Your task to perform on an android device: turn off location history Image 0: 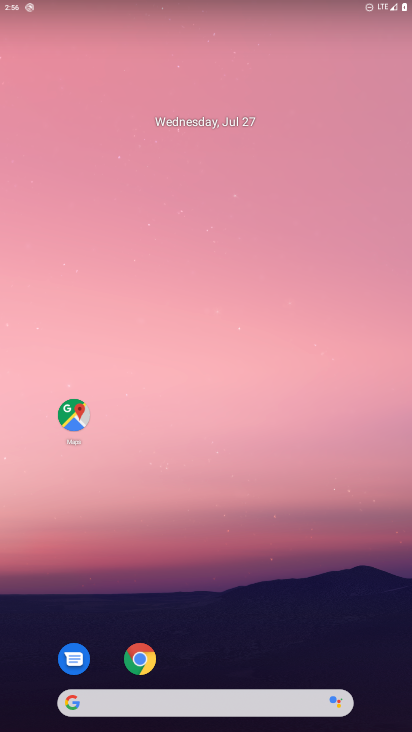
Step 0: drag from (255, 674) to (254, 522)
Your task to perform on an android device: turn off location history Image 1: 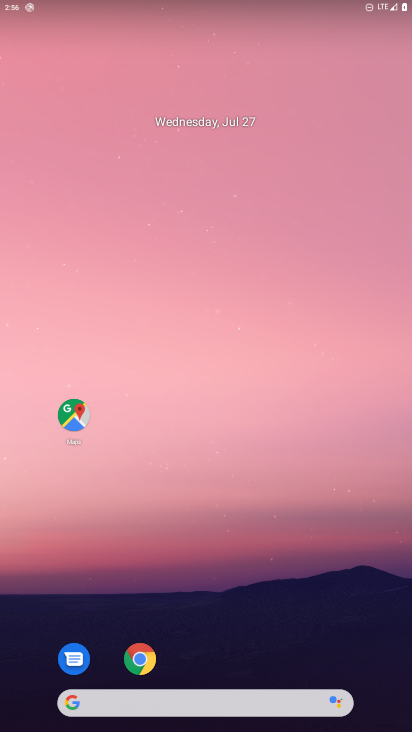
Step 1: drag from (194, 645) to (275, 296)
Your task to perform on an android device: turn off location history Image 2: 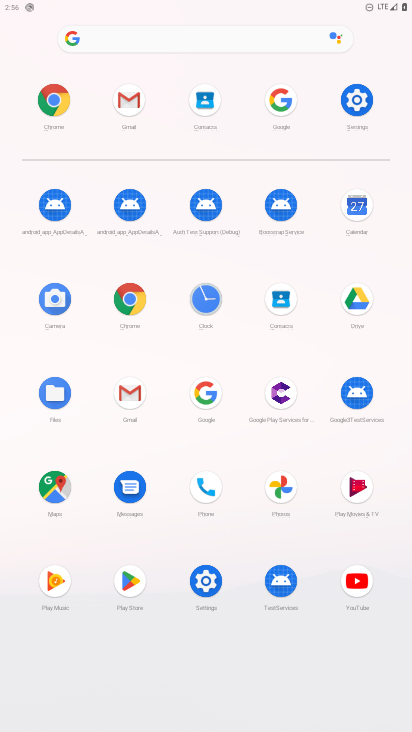
Step 2: click (363, 107)
Your task to perform on an android device: turn off location history Image 3: 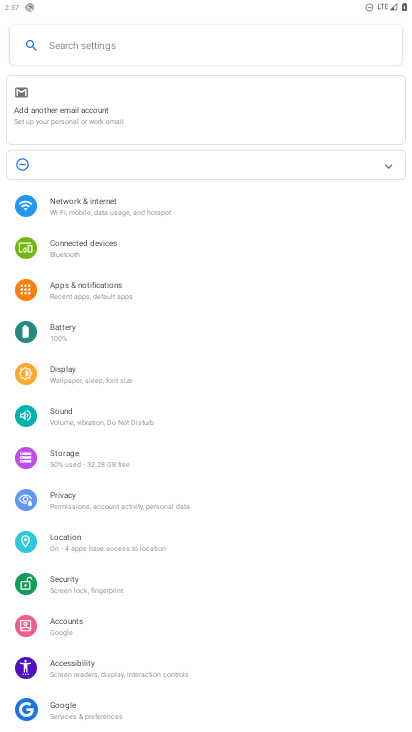
Step 3: click (363, 106)
Your task to perform on an android device: turn off location history Image 4: 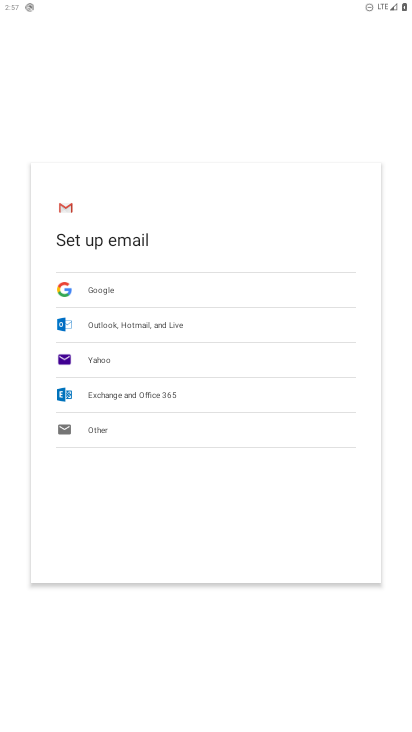
Step 4: press back button
Your task to perform on an android device: turn off location history Image 5: 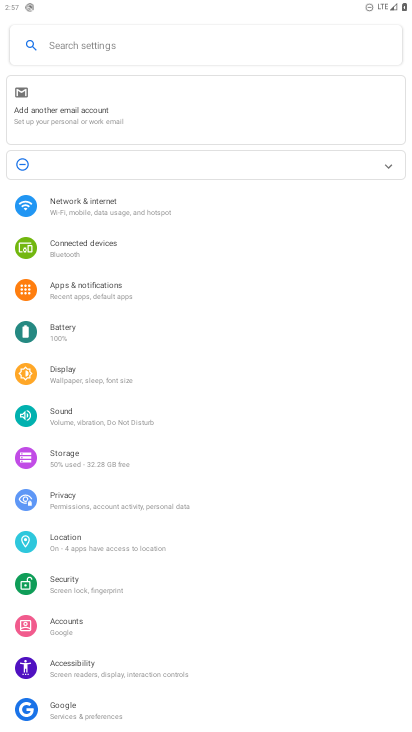
Step 5: click (77, 542)
Your task to perform on an android device: turn off location history Image 6: 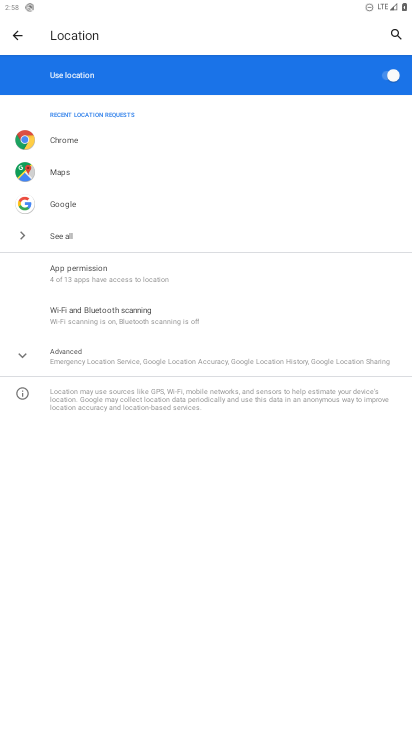
Step 6: click (57, 355)
Your task to perform on an android device: turn off location history Image 7: 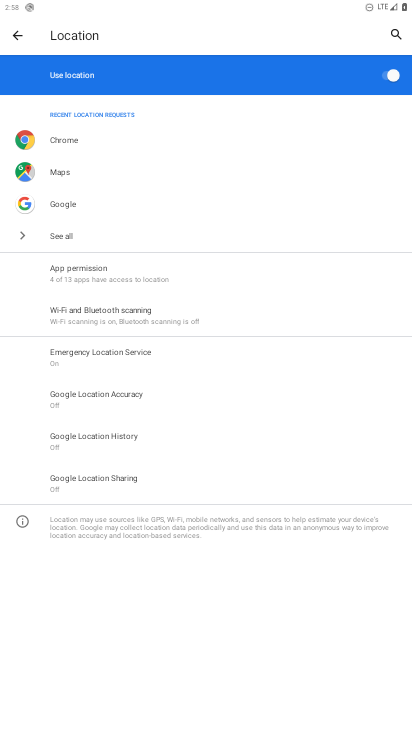
Step 7: click (68, 347)
Your task to perform on an android device: turn off location history Image 8: 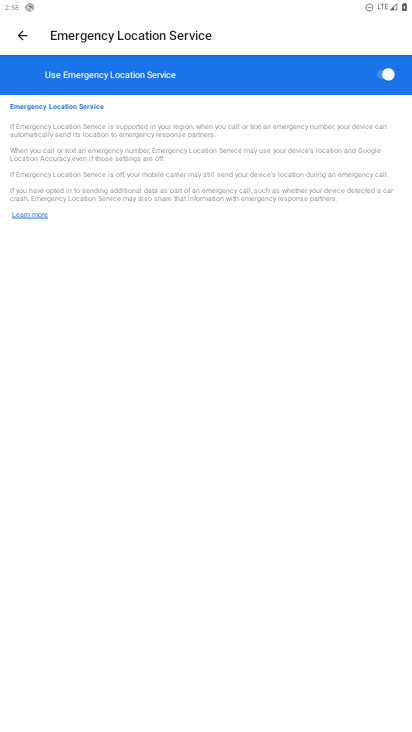
Step 8: click (24, 31)
Your task to perform on an android device: turn off location history Image 9: 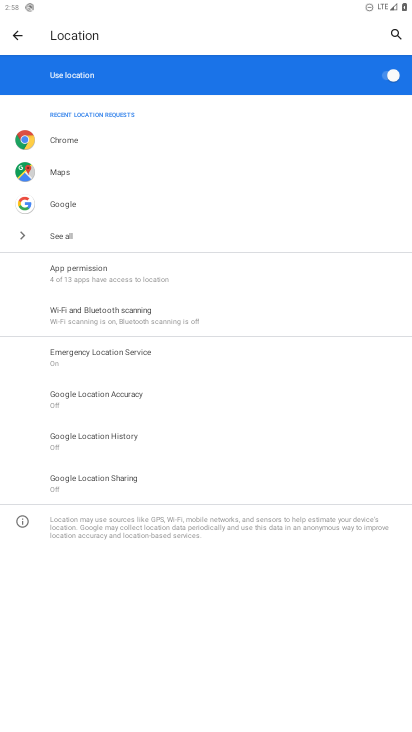
Step 9: click (117, 441)
Your task to perform on an android device: turn off location history Image 10: 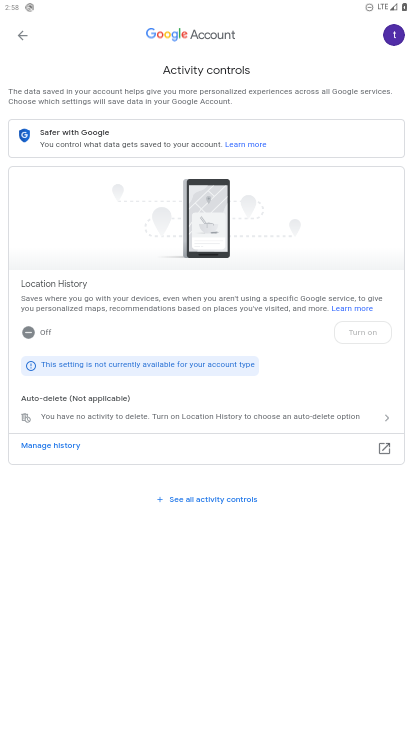
Step 10: click (17, 28)
Your task to perform on an android device: turn off location history Image 11: 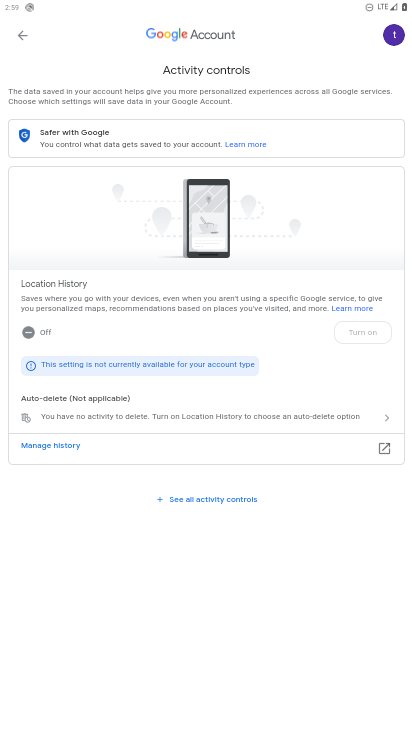
Step 11: task complete